Your task to perform on an android device: toggle notification dots Image 0: 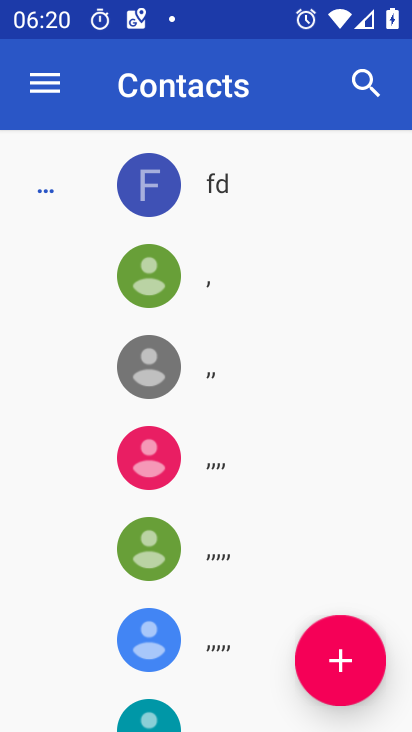
Step 0: press home button
Your task to perform on an android device: toggle notification dots Image 1: 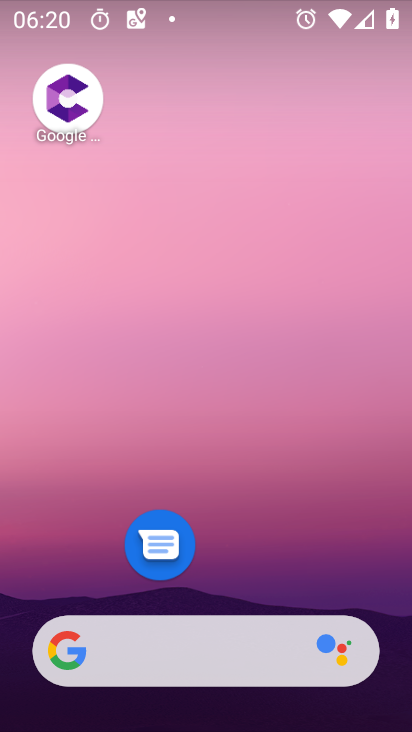
Step 1: drag from (190, 517) to (222, 298)
Your task to perform on an android device: toggle notification dots Image 2: 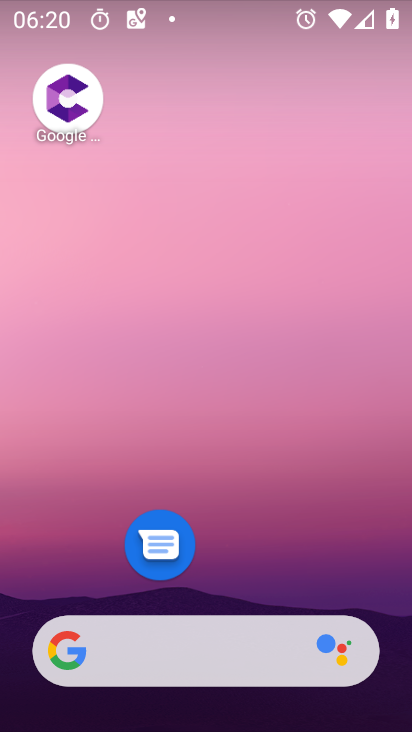
Step 2: drag from (266, 568) to (221, 233)
Your task to perform on an android device: toggle notification dots Image 3: 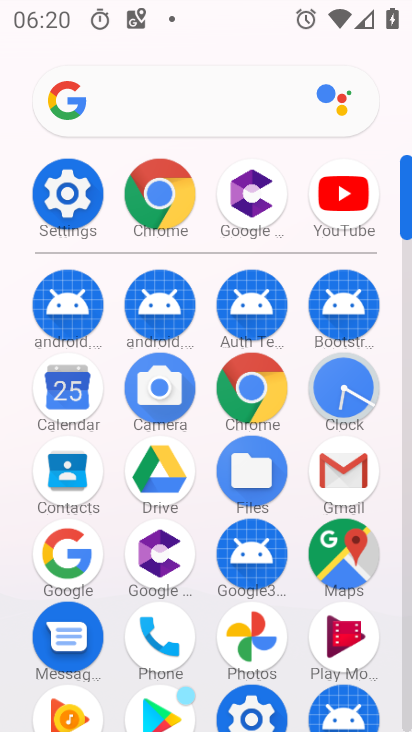
Step 3: click (50, 204)
Your task to perform on an android device: toggle notification dots Image 4: 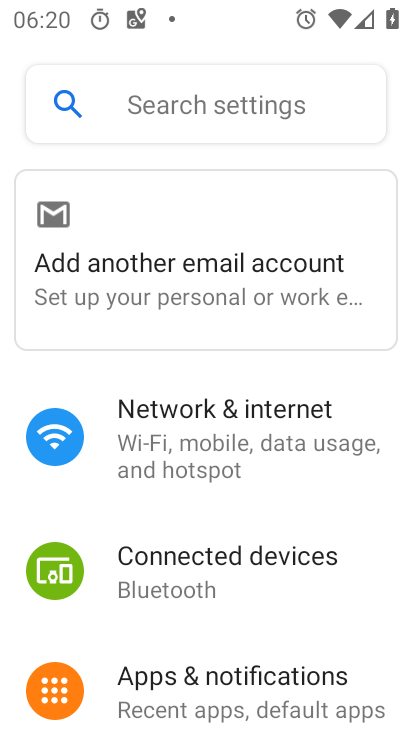
Step 4: click (155, 697)
Your task to perform on an android device: toggle notification dots Image 5: 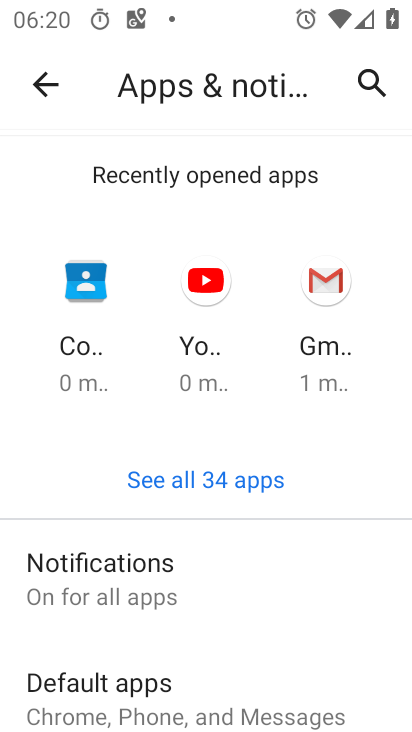
Step 5: click (92, 586)
Your task to perform on an android device: toggle notification dots Image 6: 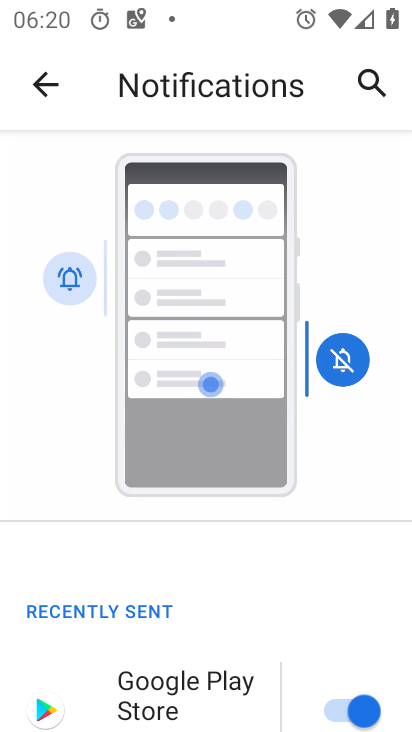
Step 6: drag from (235, 706) to (210, 385)
Your task to perform on an android device: toggle notification dots Image 7: 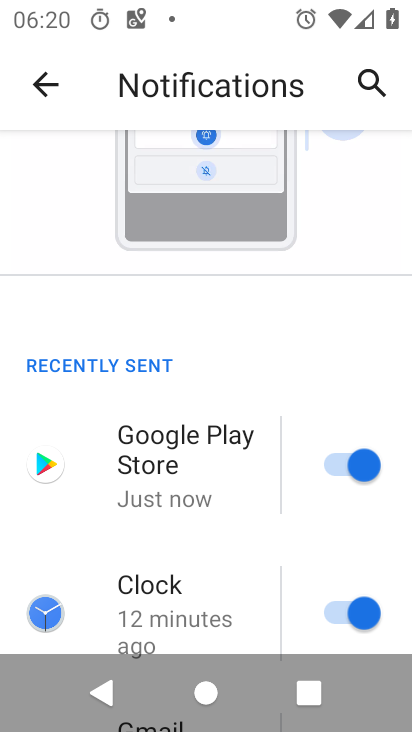
Step 7: drag from (220, 643) to (192, 357)
Your task to perform on an android device: toggle notification dots Image 8: 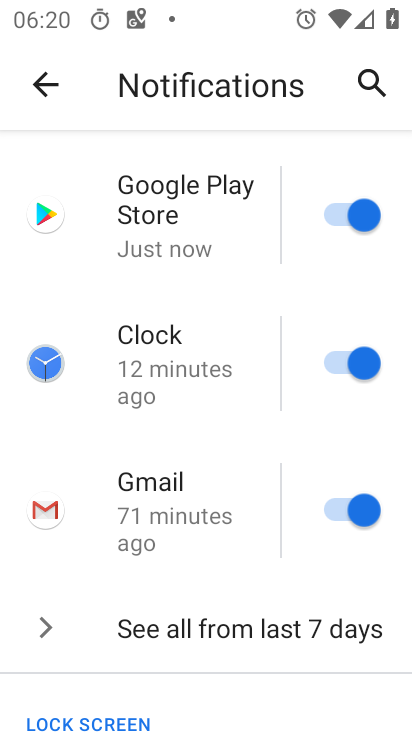
Step 8: drag from (199, 727) to (171, 491)
Your task to perform on an android device: toggle notification dots Image 9: 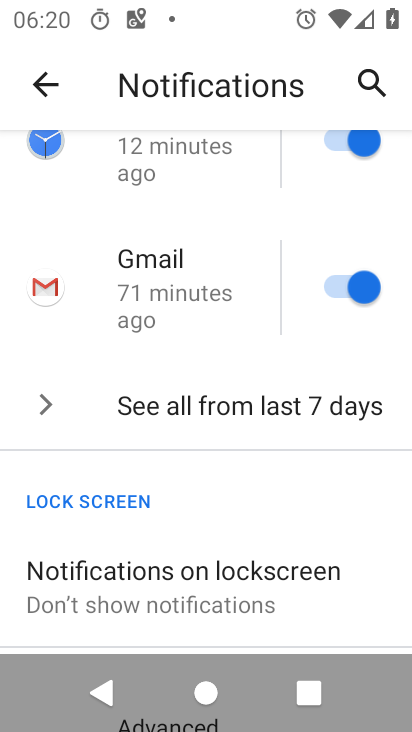
Step 9: drag from (152, 617) to (159, 415)
Your task to perform on an android device: toggle notification dots Image 10: 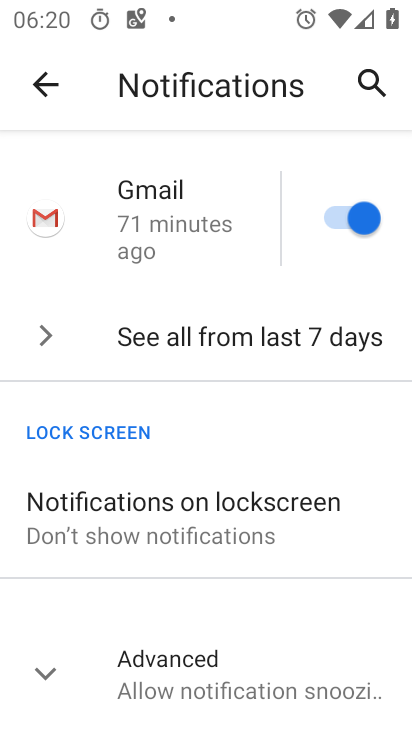
Step 10: click (168, 686)
Your task to perform on an android device: toggle notification dots Image 11: 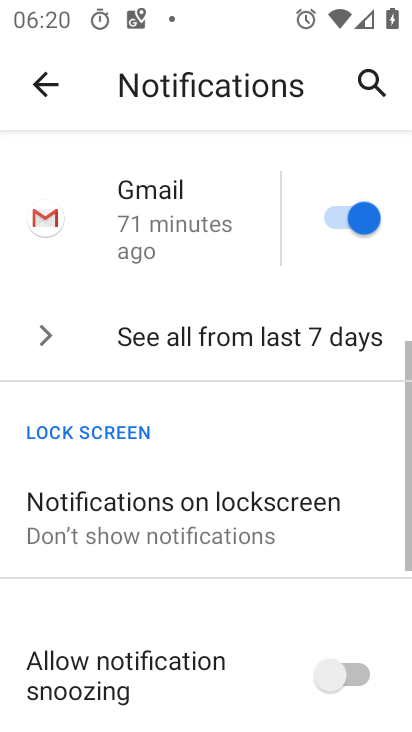
Step 11: drag from (183, 722) to (184, 433)
Your task to perform on an android device: toggle notification dots Image 12: 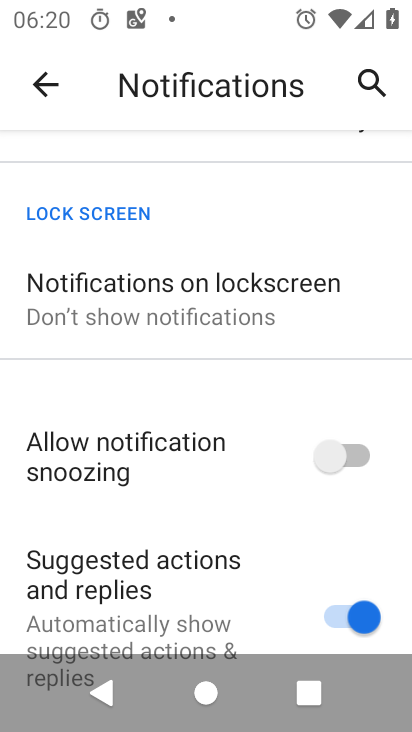
Step 12: drag from (220, 618) to (210, 376)
Your task to perform on an android device: toggle notification dots Image 13: 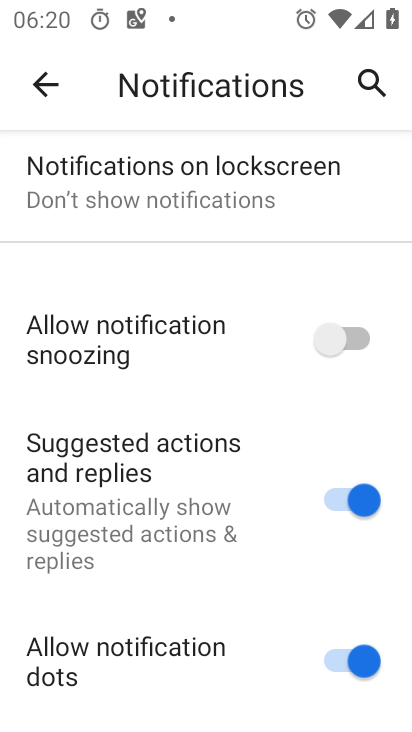
Step 13: click (340, 659)
Your task to perform on an android device: toggle notification dots Image 14: 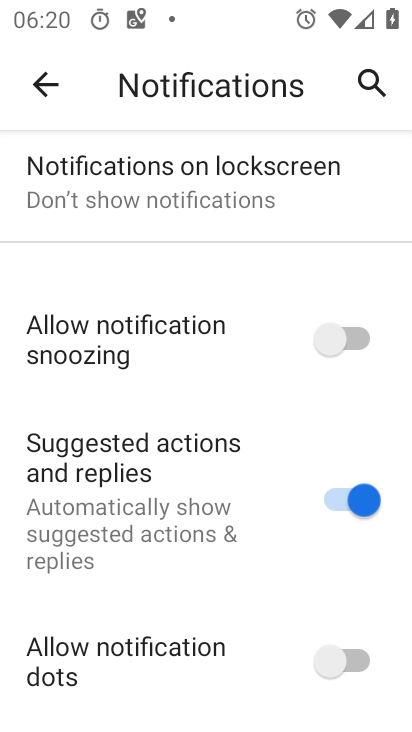
Step 14: task complete